Your task to perform on an android device: open app "HBO Max: Stream TV & Movies" Image 0: 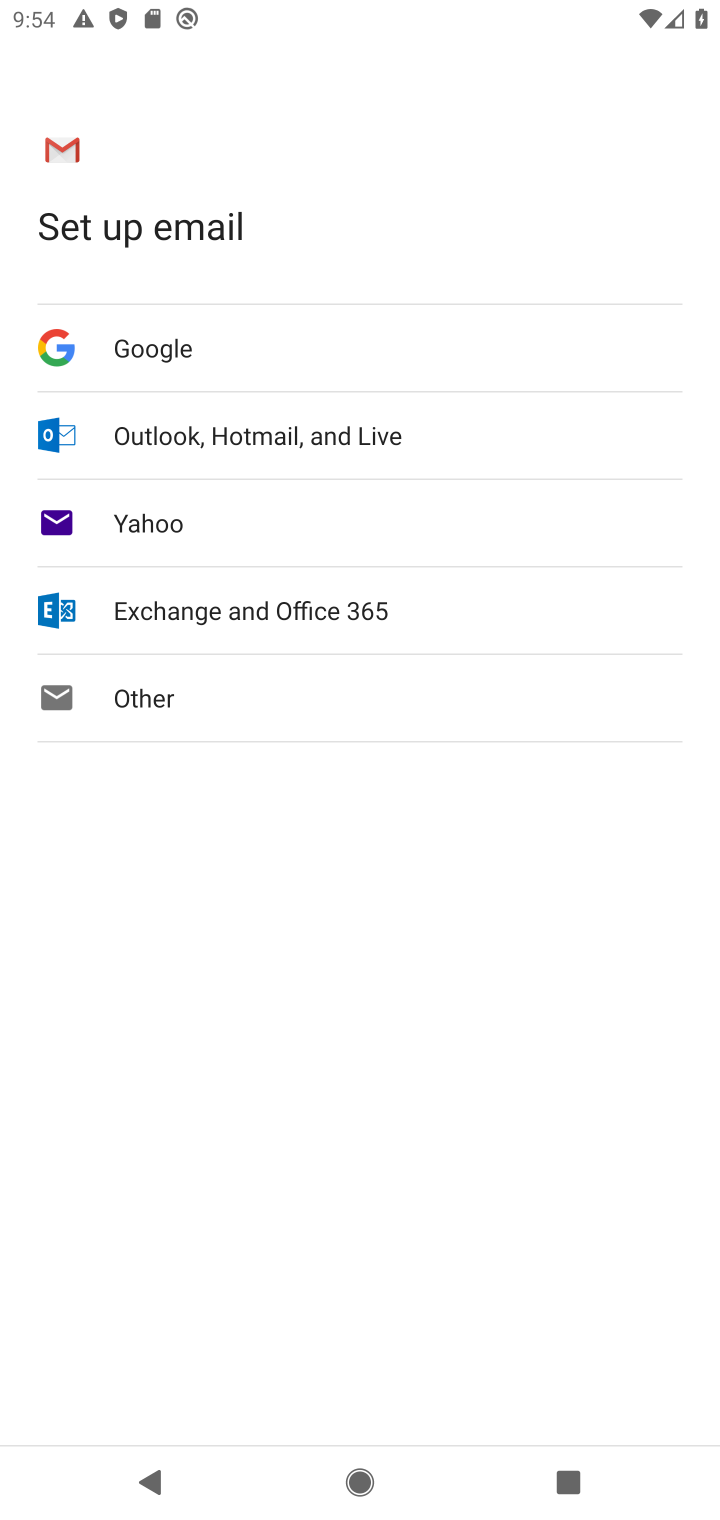
Step 0: press home button
Your task to perform on an android device: open app "HBO Max: Stream TV & Movies" Image 1: 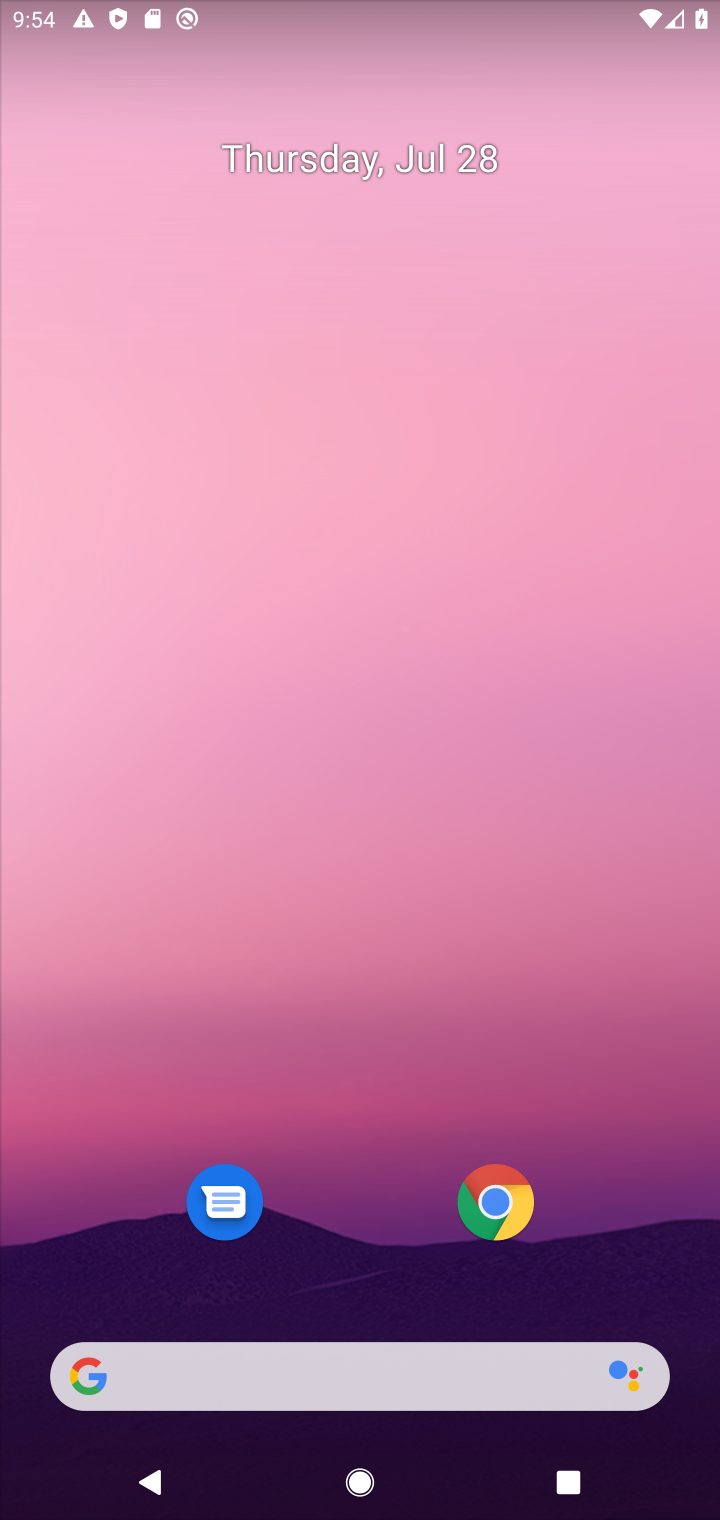
Step 1: drag from (351, 1318) to (344, 72)
Your task to perform on an android device: open app "HBO Max: Stream TV & Movies" Image 2: 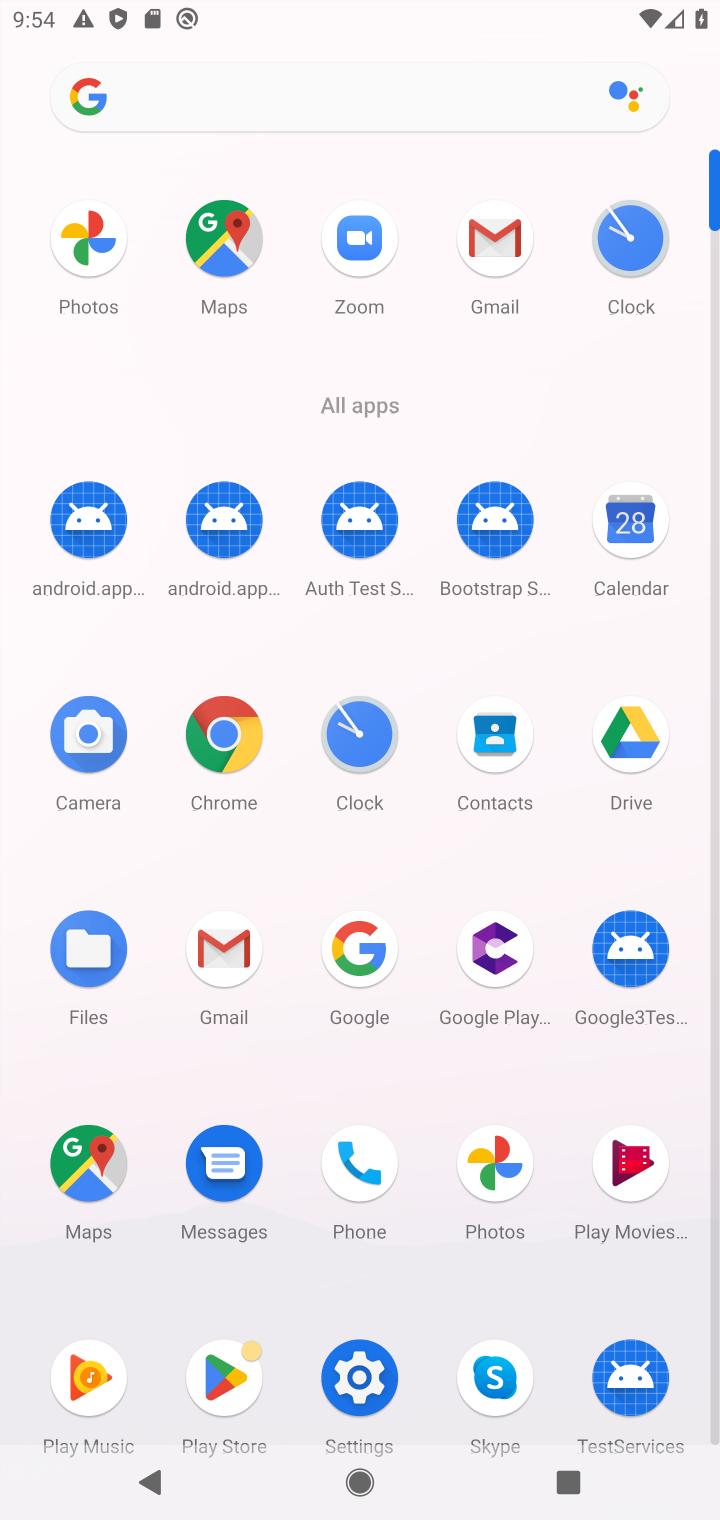
Step 2: click (353, 110)
Your task to perform on an android device: open app "HBO Max: Stream TV & Movies" Image 3: 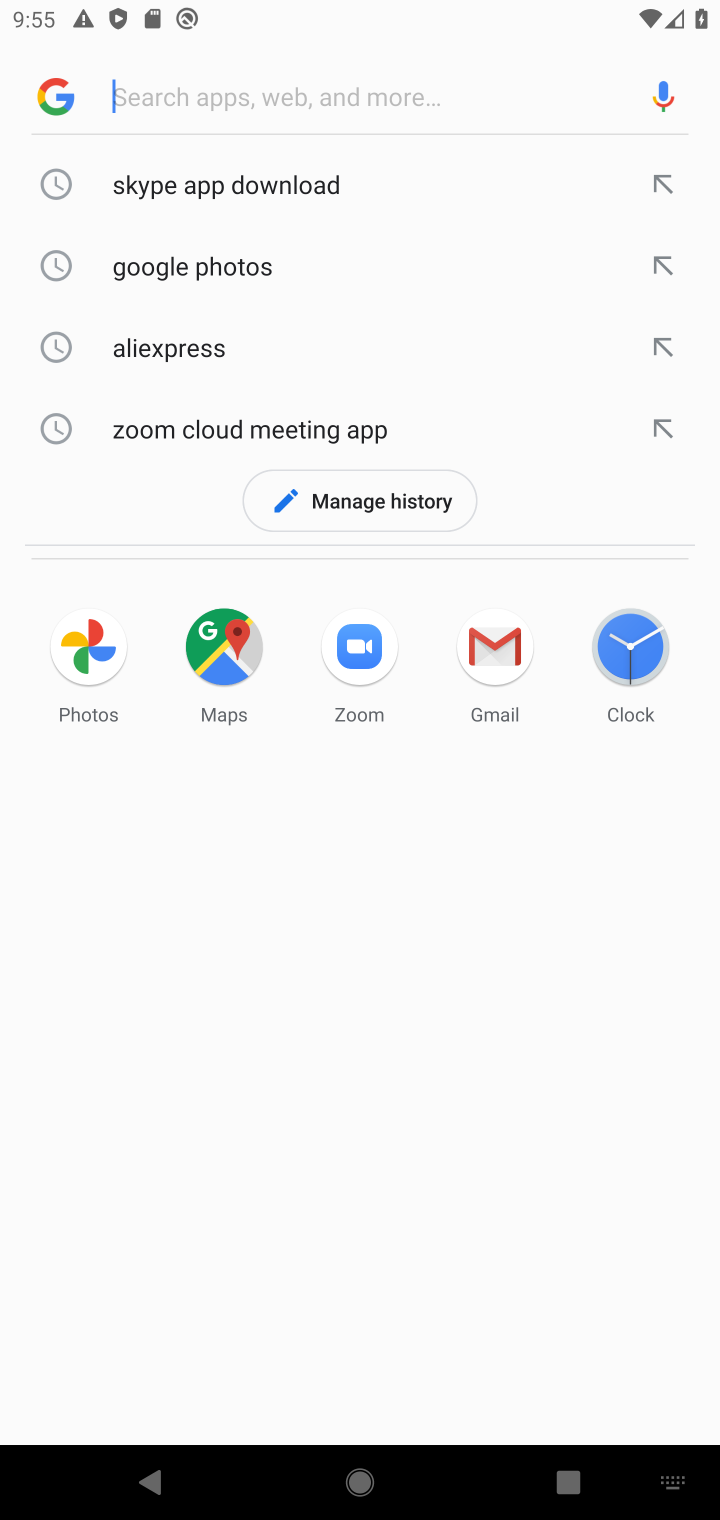
Step 3: type "Hbo "
Your task to perform on an android device: open app "HBO Max: Stream TV & Movies" Image 4: 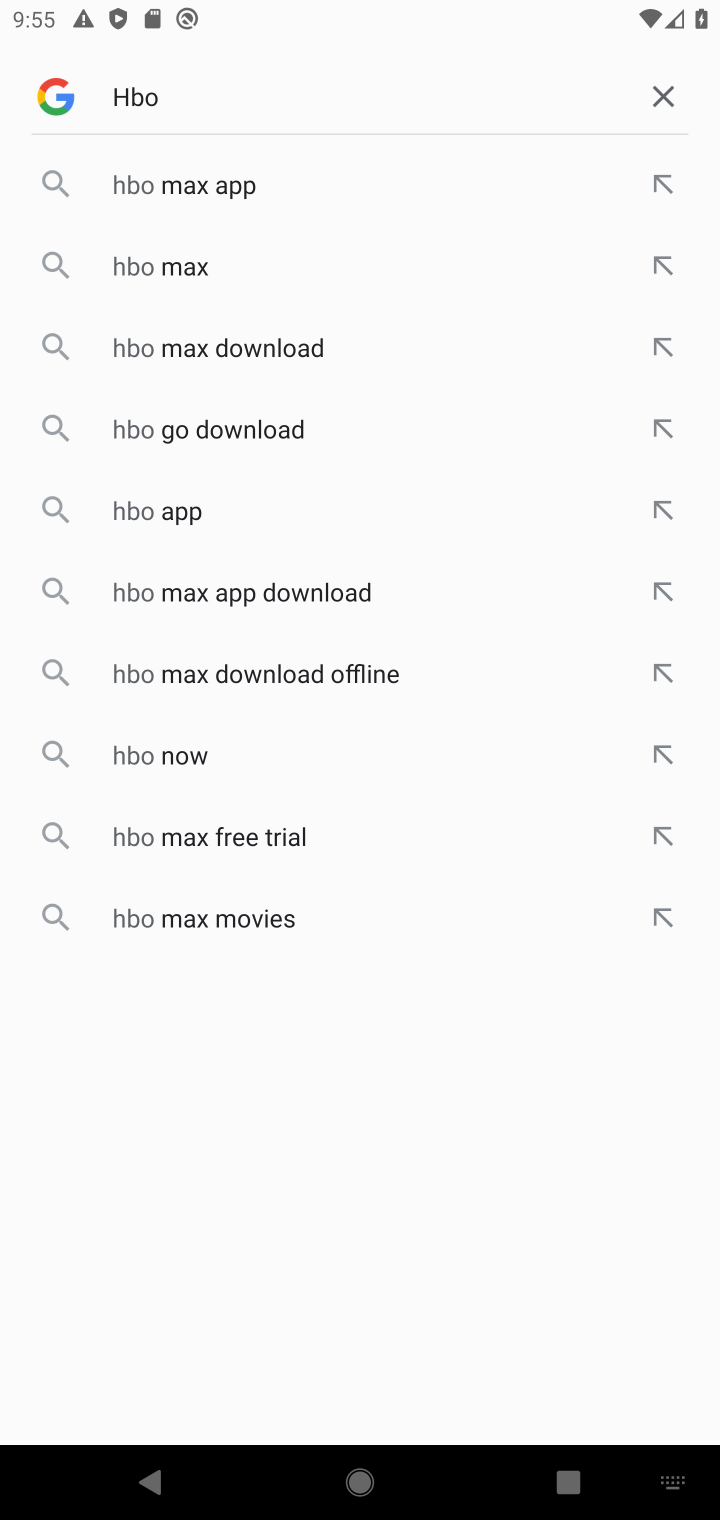
Step 4: click (340, 211)
Your task to perform on an android device: open app "HBO Max: Stream TV & Movies" Image 5: 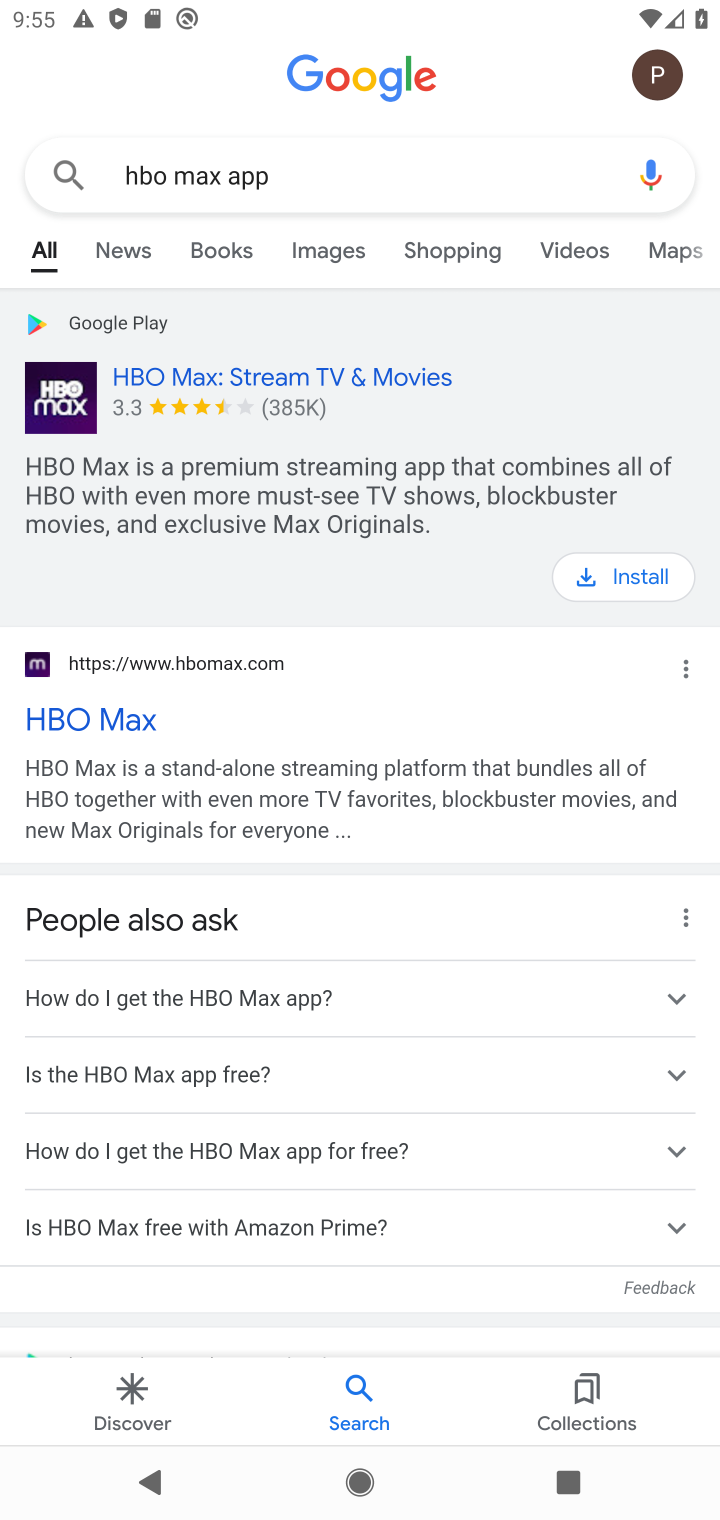
Step 5: click (613, 588)
Your task to perform on an android device: open app "HBO Max: Stream TV & Movies" Image 6: 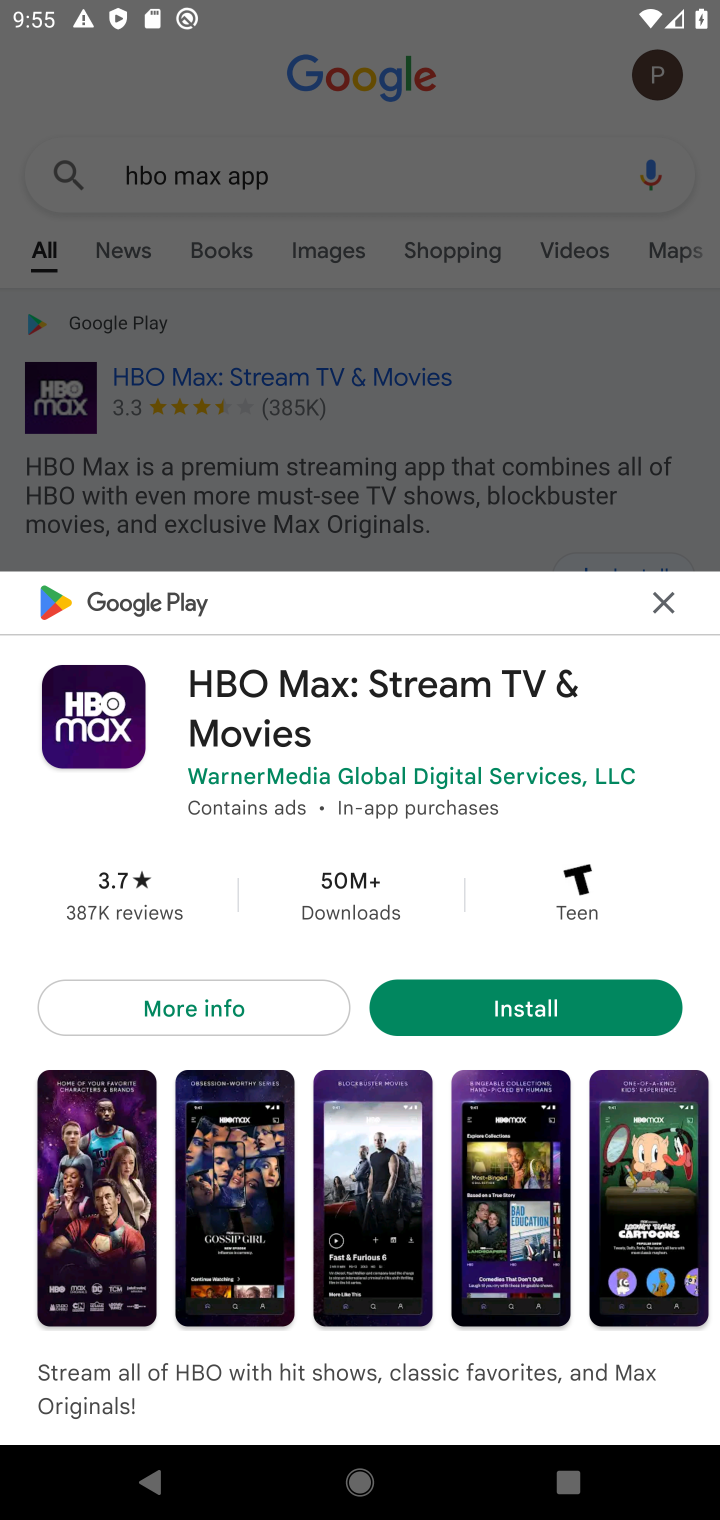
Step 6: click (569, 1019)
Your task to perform on an android device: open app "HBO Max: Stream TV & Movies" Image 7: 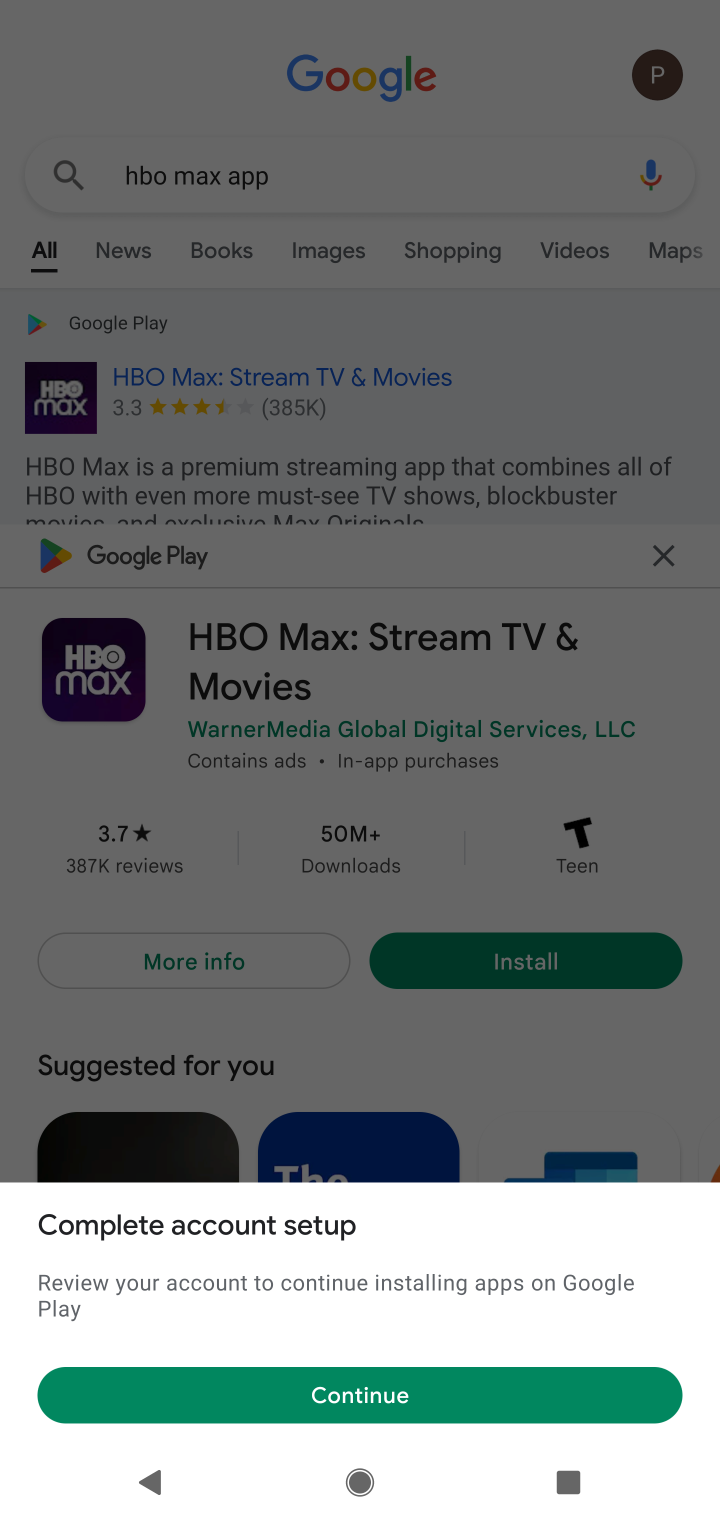
Step 7: click (401, 1380)
Your task to perform on an android device: open app "HBO Max: Stream TV & Movies" Image 8: 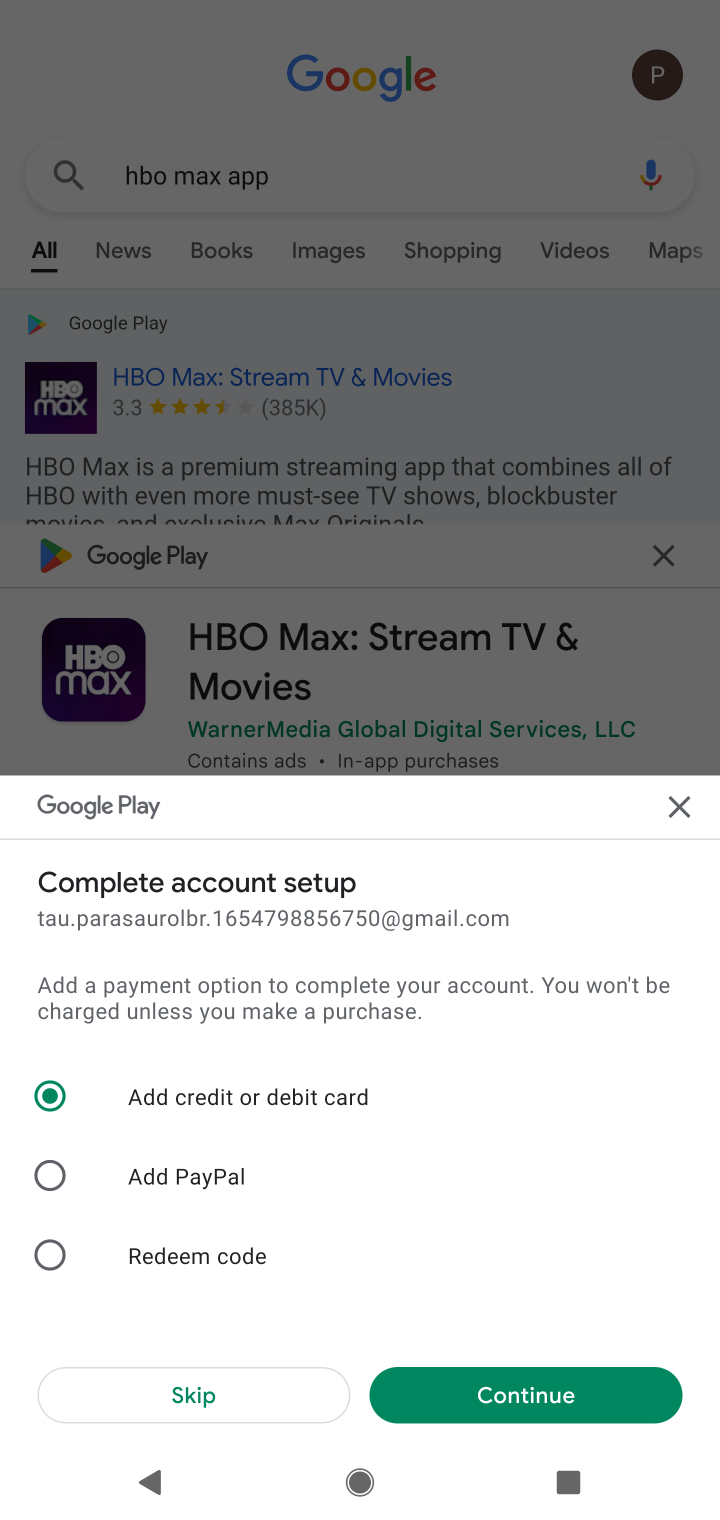
Step 8: click (117, 1414)
Your task to perform on an android device: open app "HBO Max: Stream TV & Movies" Image 9: 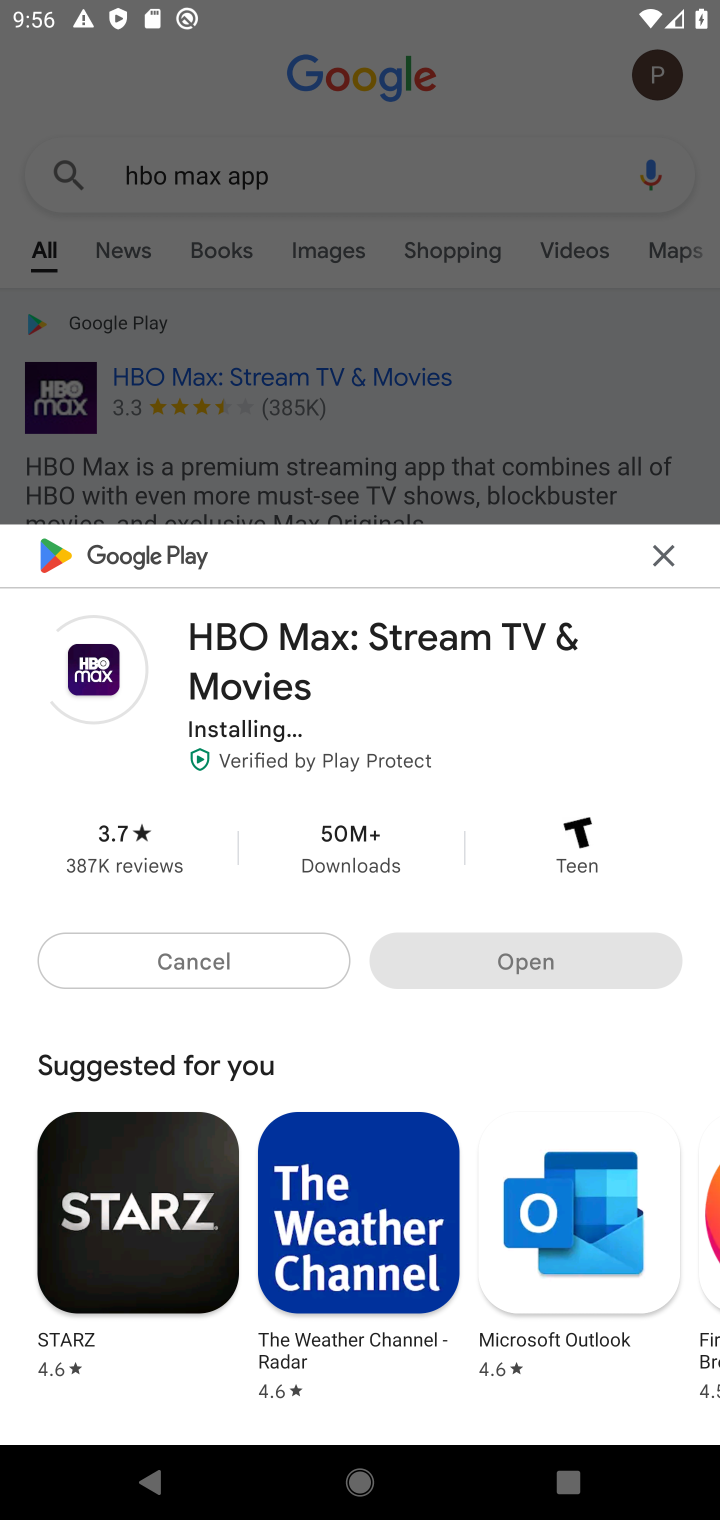
Step 9: task complete